Your task to perform on an android device: check android version Image 0: 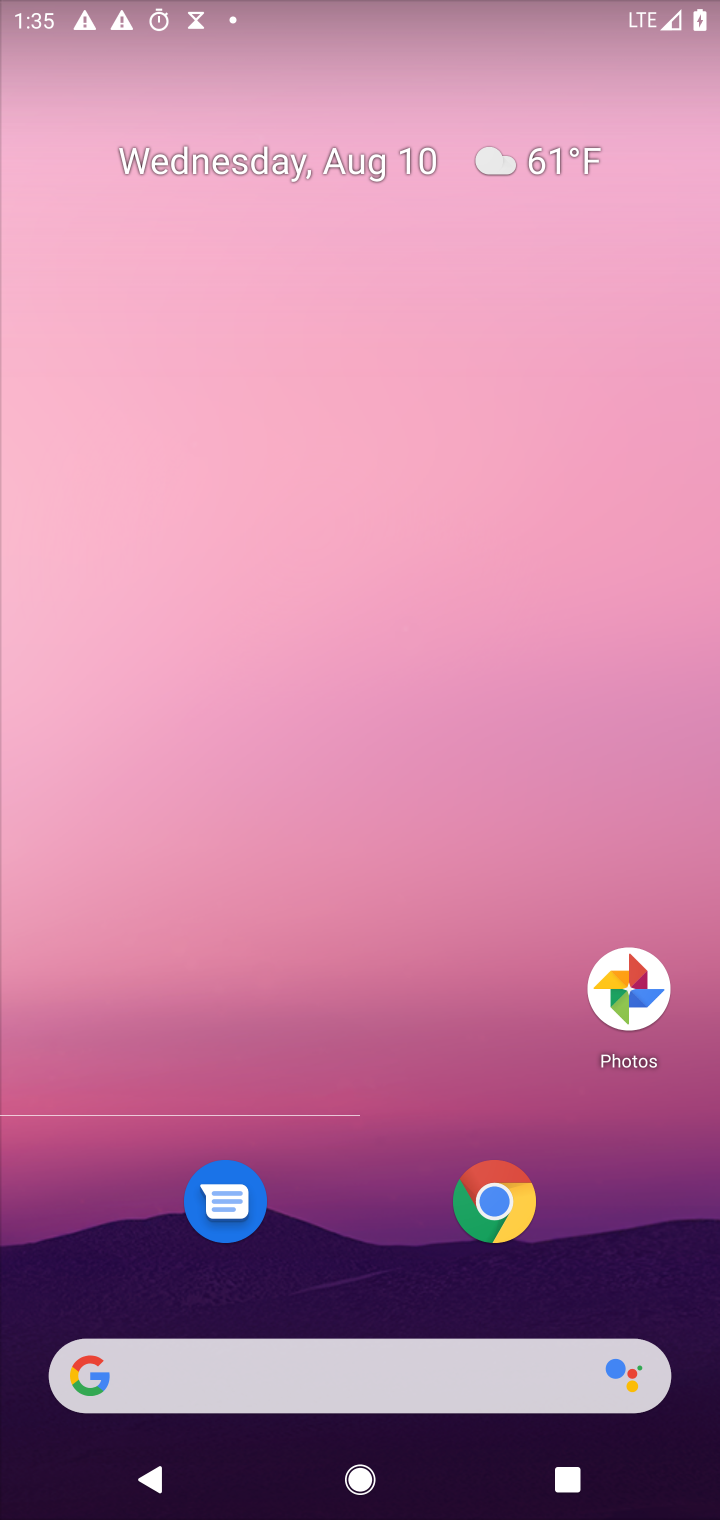
Step 0: press home button
Your task to perform on an android device: check android version Image 1: 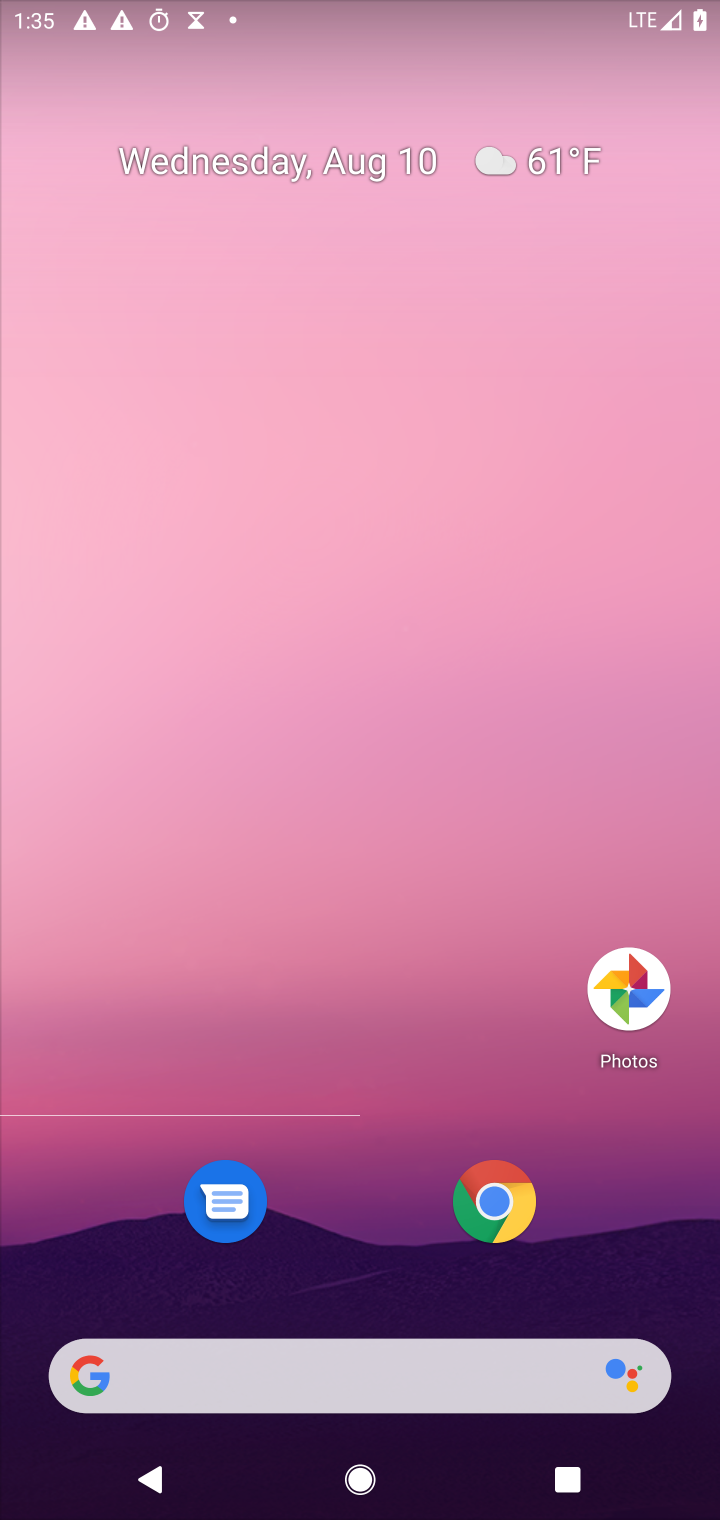
Step 1: drag from (317, 991) to (361, 116)
Your task to perform on an android device: check android version Image 2: 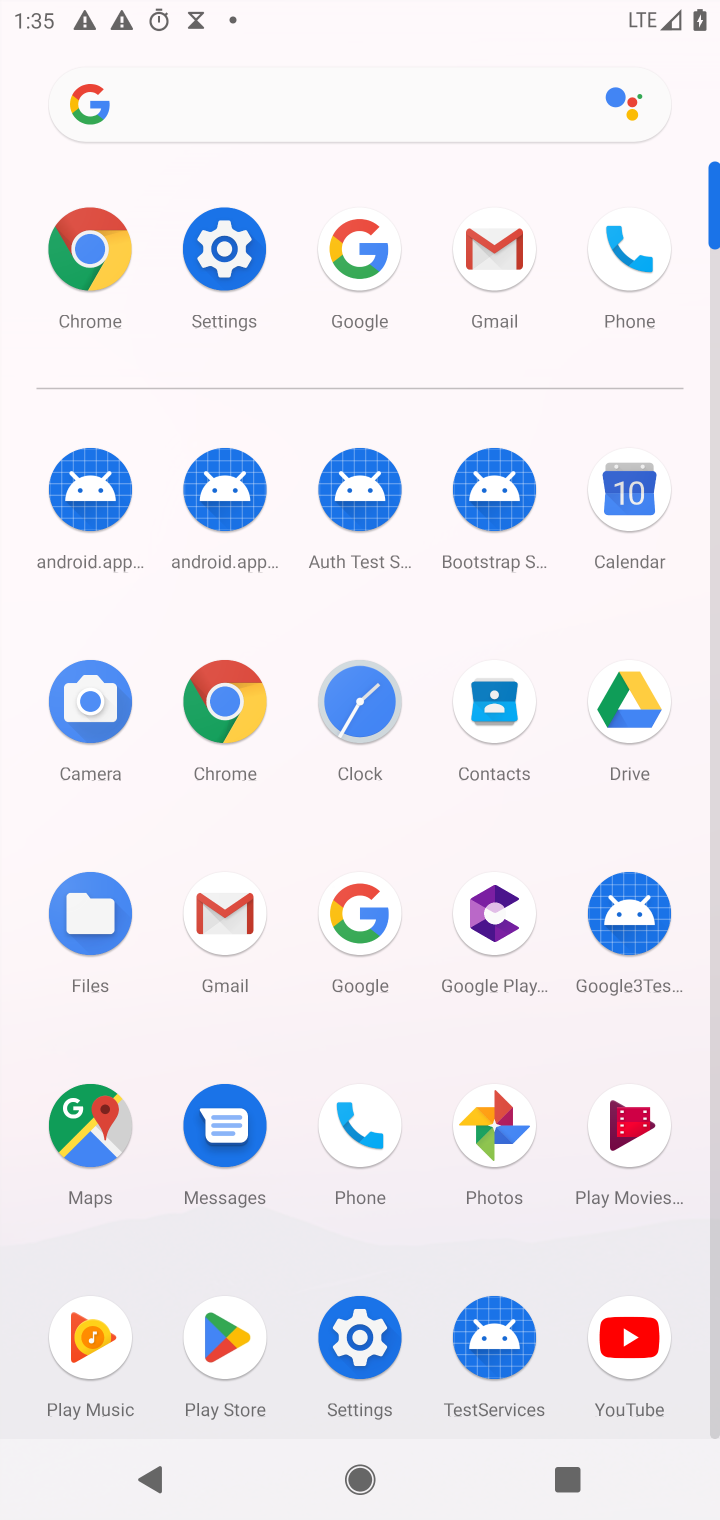
Step 2: click (205, 239)
Your task to perform on an android device: check android version Image 3: 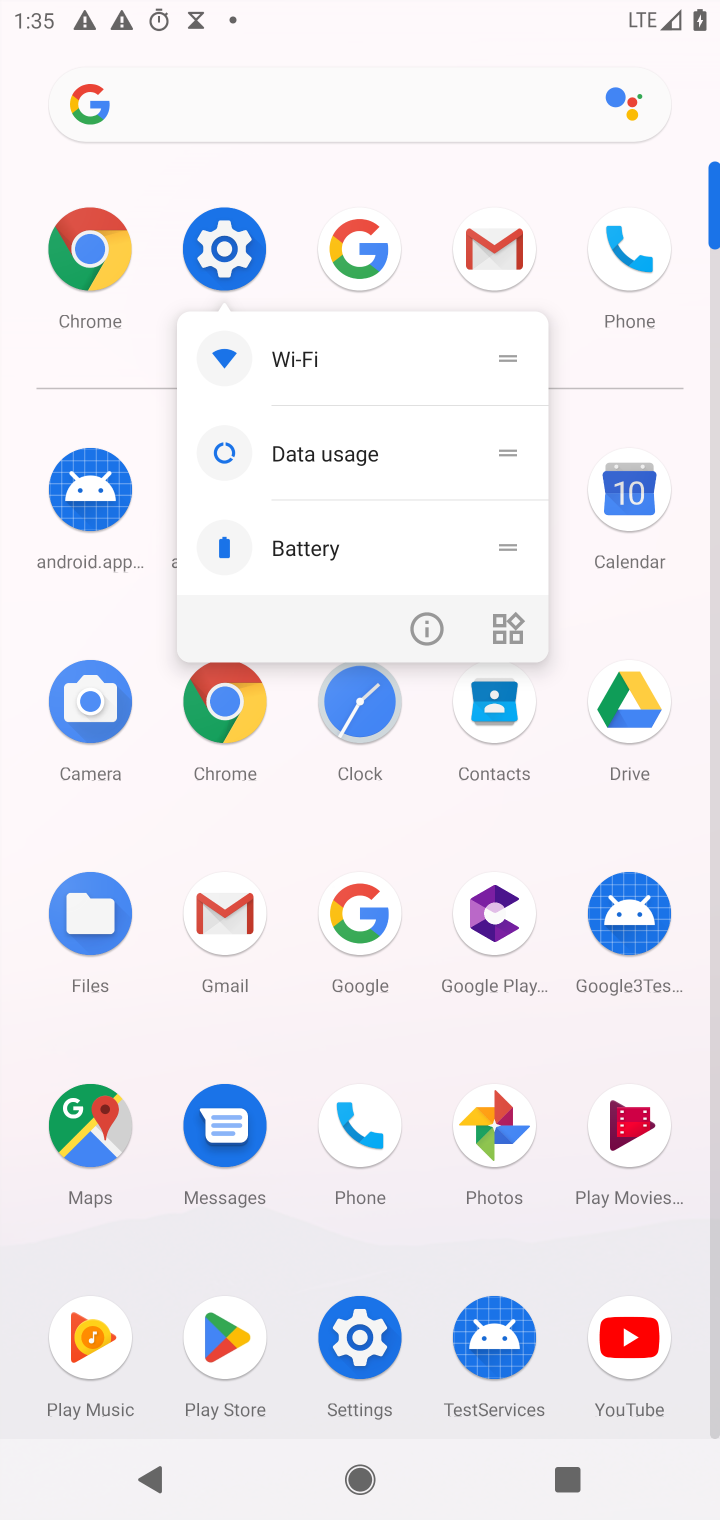
Step 3: click (205, 252)
Your task to perform on an android device: check android version Image 4: 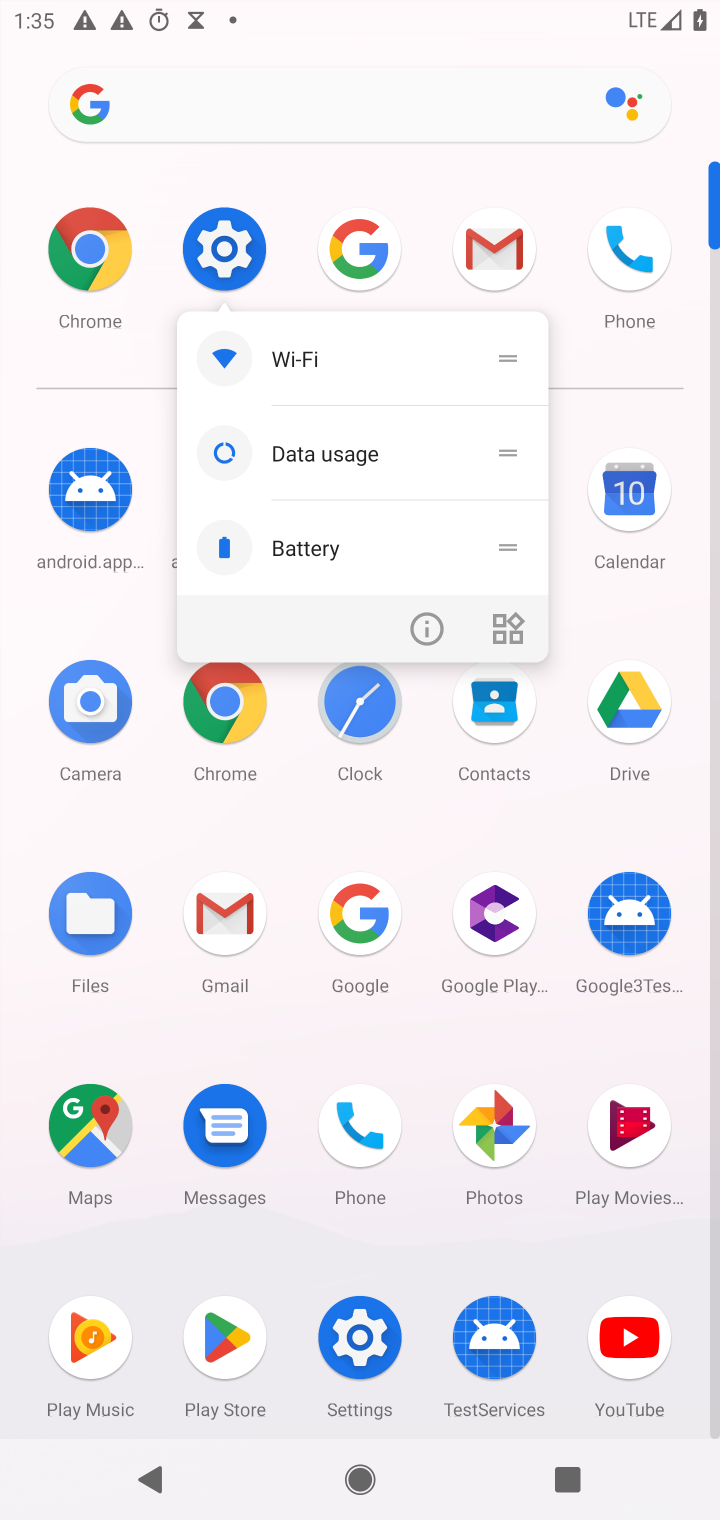
Step 4: click (205, 252)
Your task to perform on an android device: check android version Image 5: 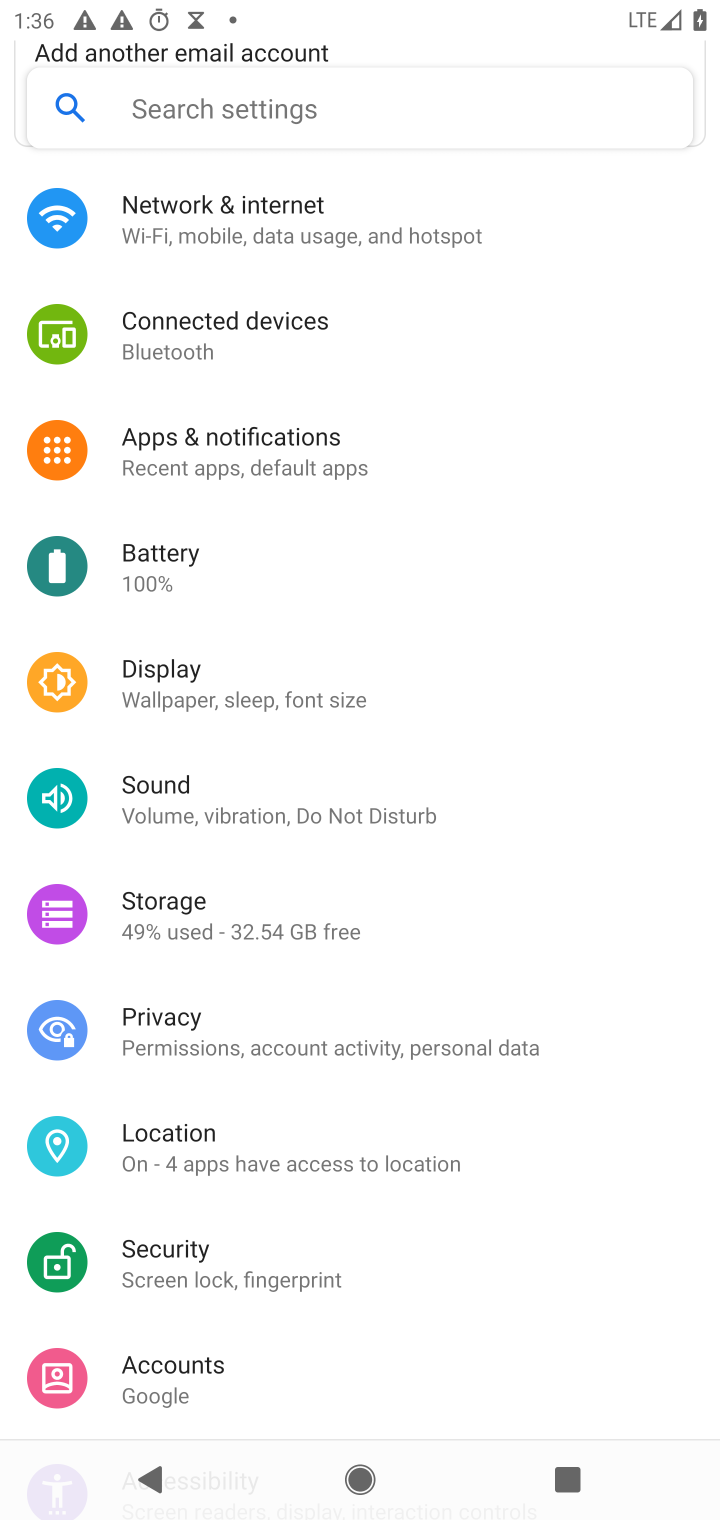
Step 5: drag from (387, 1235) to (280, 440)
Your task to perform on an android device: check android version Image 6: 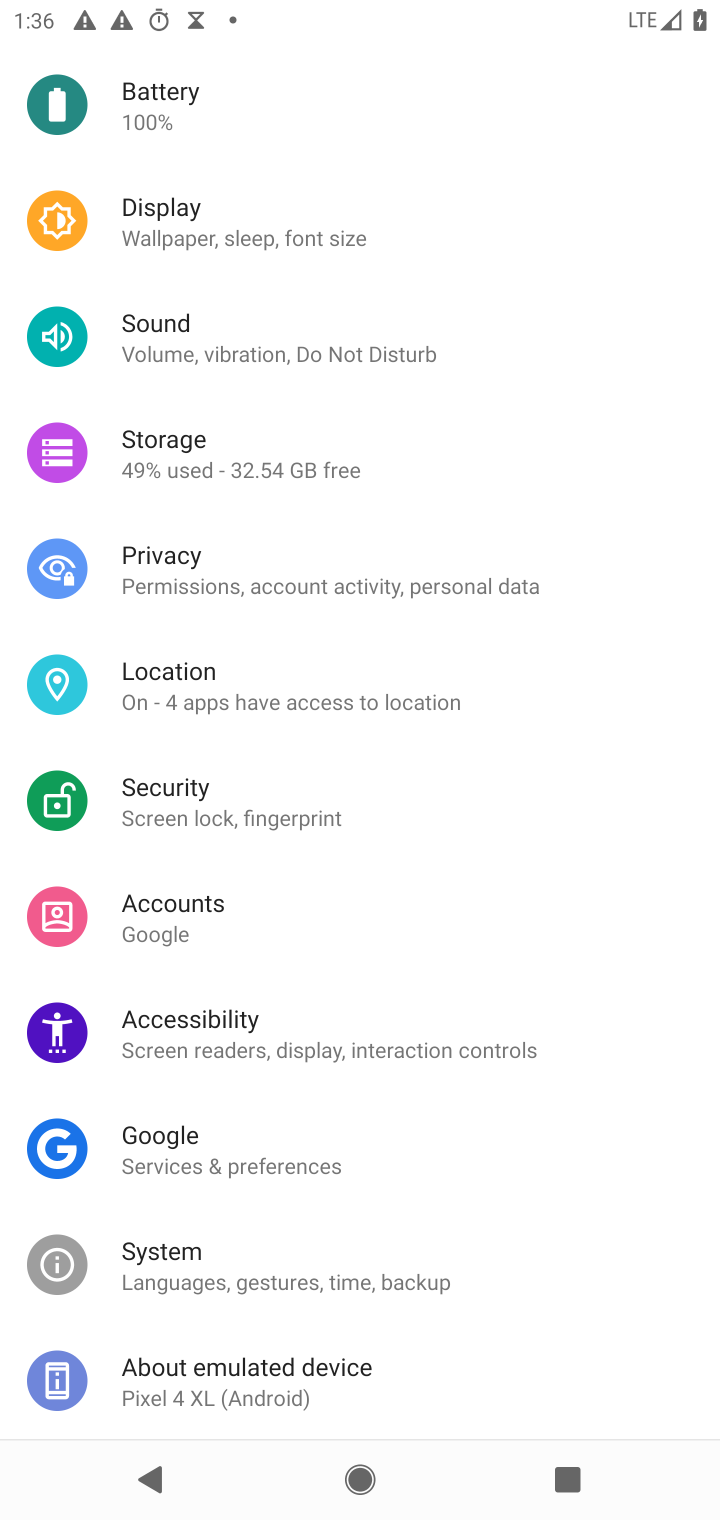
Step 6: click (182, 1379)
Your task to perform on an android device: check android version Image 7: 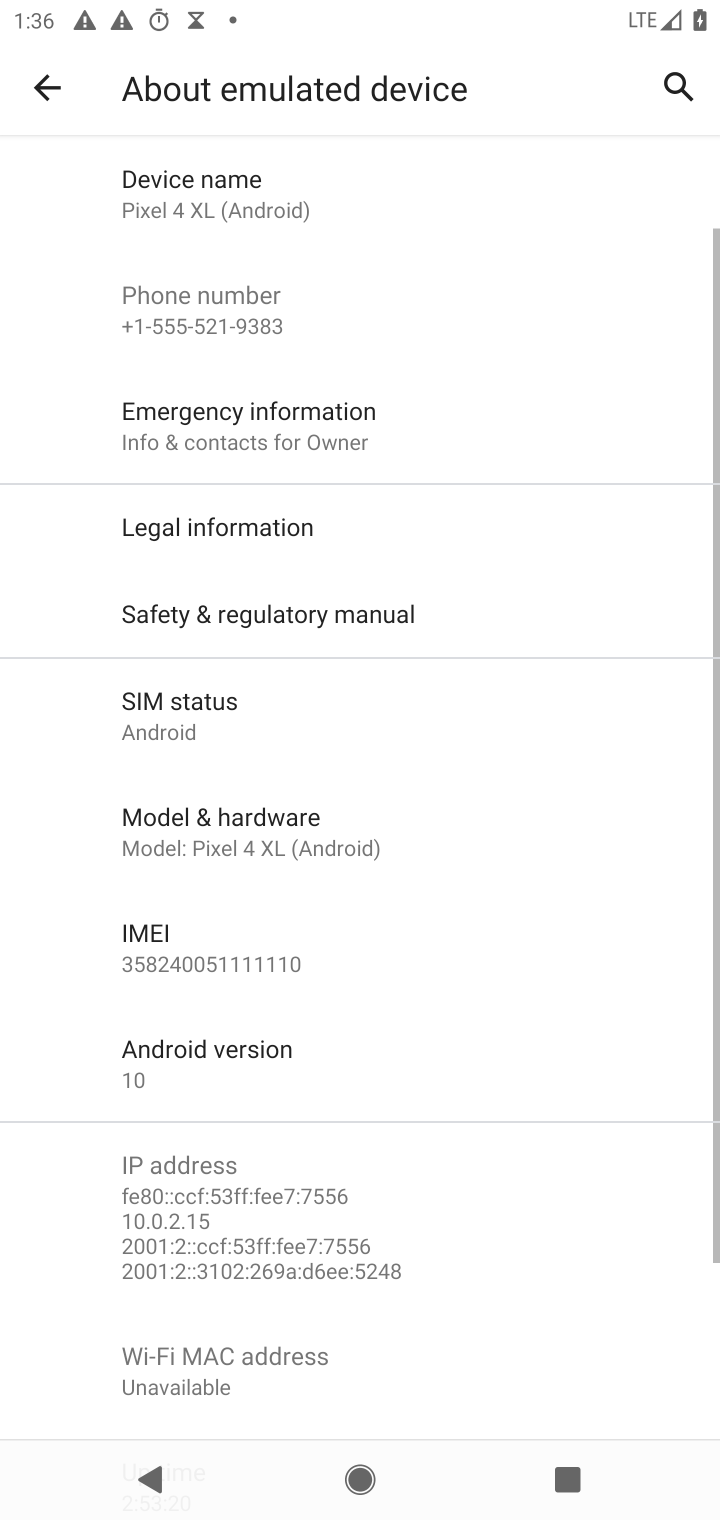
Step 7: click (156, 1062)
Your task to perform on an android device: check android version Image 8: 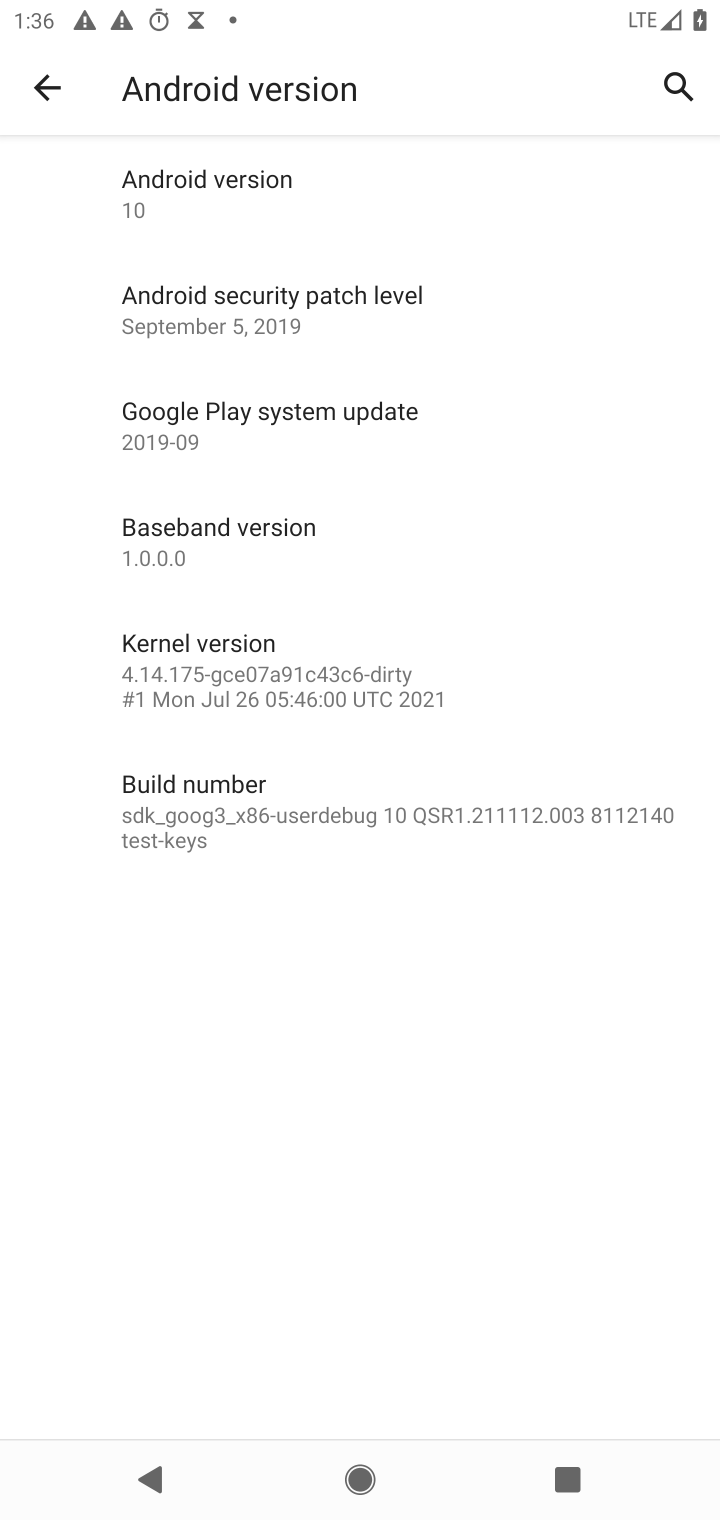
Step 8: task complete